Your task to perform on an android device: Open battery settings Image 0: 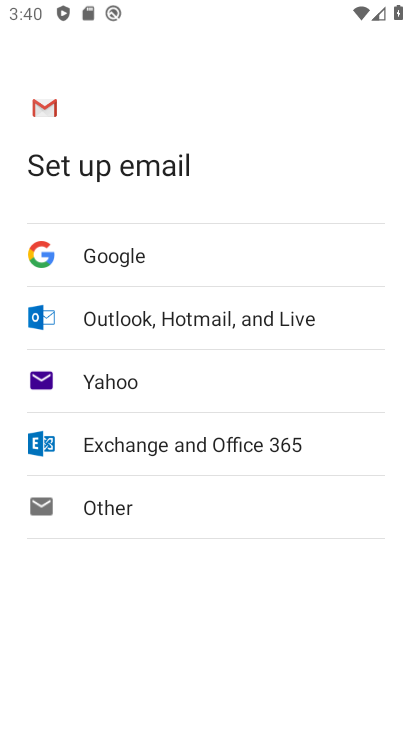
Step 0: press home button
Your task to perform on an android device: Open battery settings Image 1: 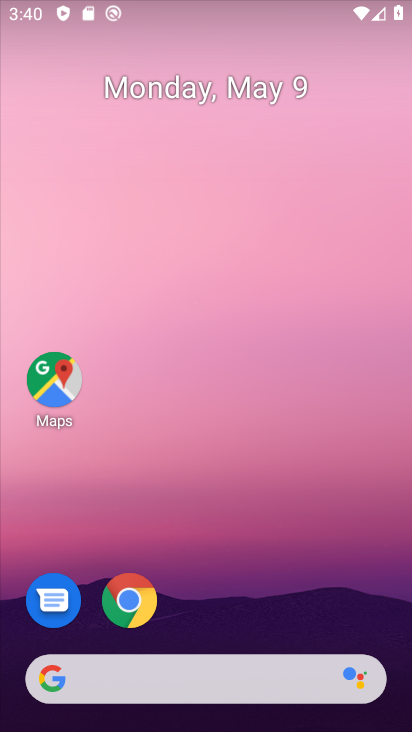
Step 1: drag from (227, 674) to (133, 114)
Your task to perform on an android device: Open battery settings Image 2: 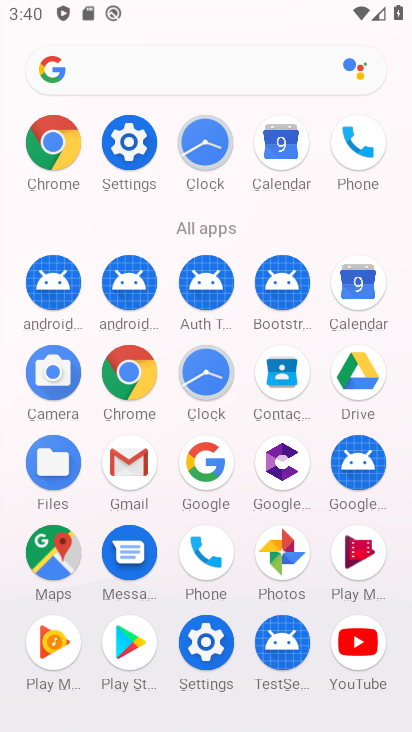
Step 2: click (142, 146)
Your task to perform on an android device: Open battery settings Image 3: 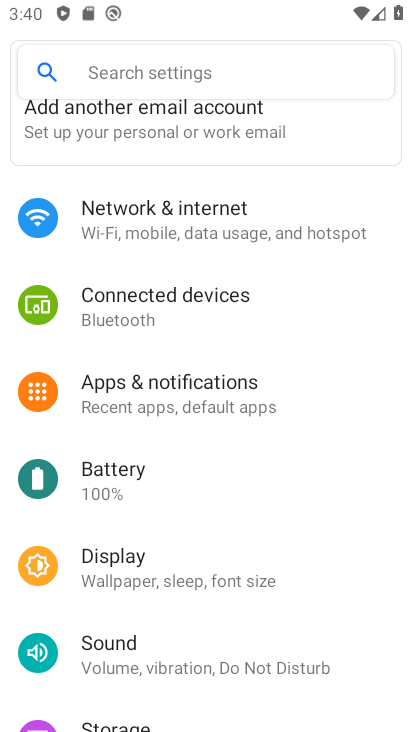
Step 3: click (171, 478)
Your task to perform on an android device: Open battery settings Image 4: 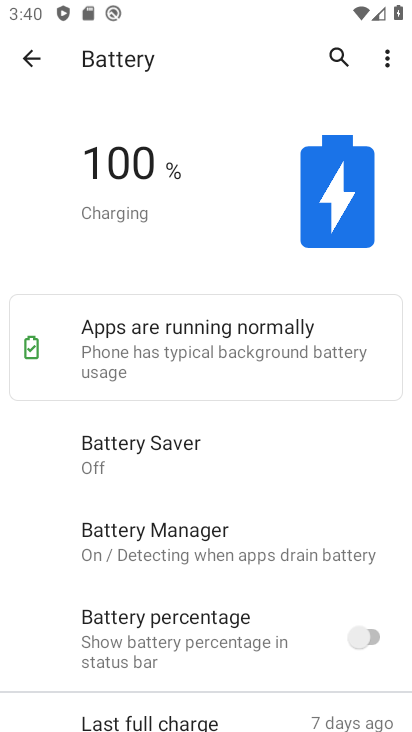
Step 4: task complete